Your task to perform on an android device: see creations saved in the google photos Image 0: 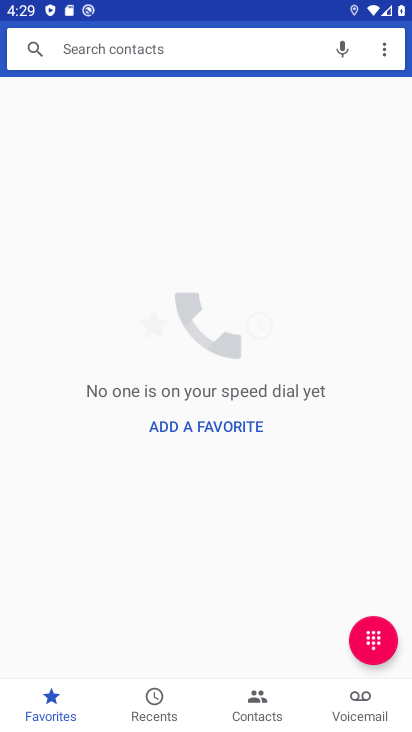
Step 0: press home button
Your task to perform on an android device: see creations saved in the google photos Image 1: 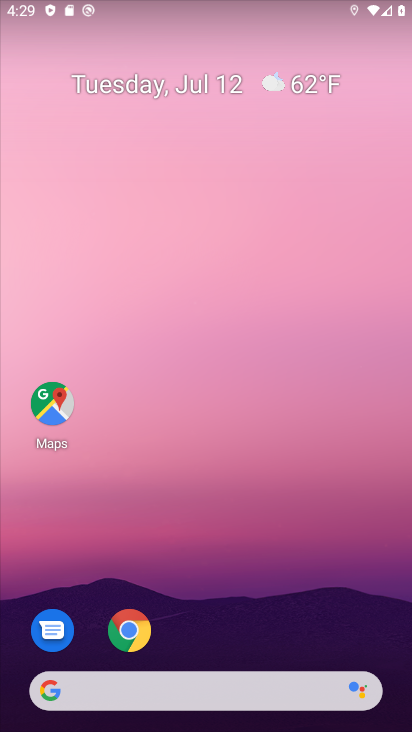
Step 1: drag from (208, 663) to (272, 217)
Your task to perform on an android device: see creations saved in the google photos Image 2: 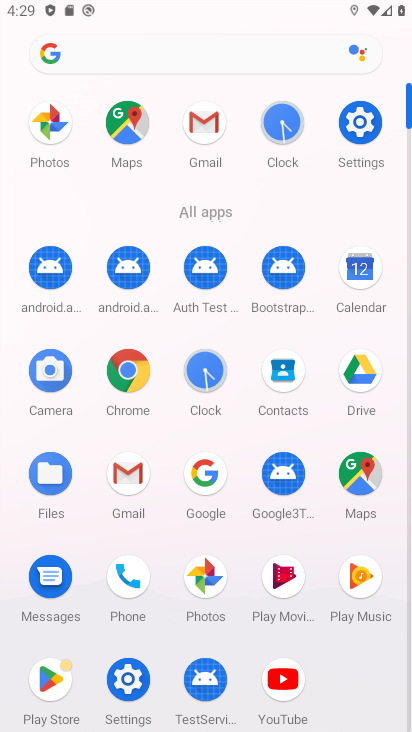
Step 2: click (193, 585)
Your task to perform on an android device: see creations saved in the google photos Image 3: 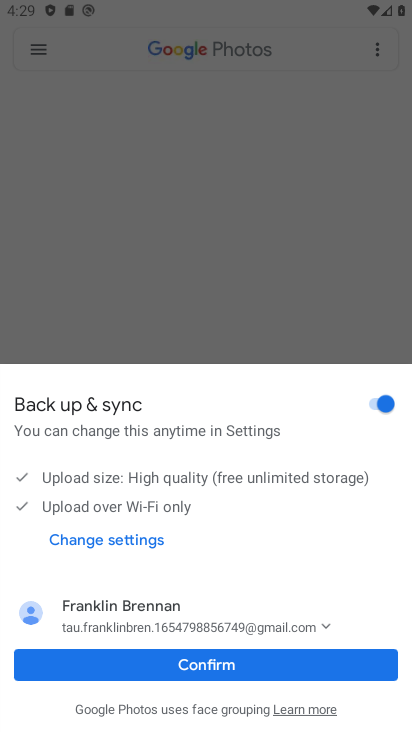
Step 3: click (218, 663)
Your task to perform on an android device: see creations saved in the google photos Image 4: 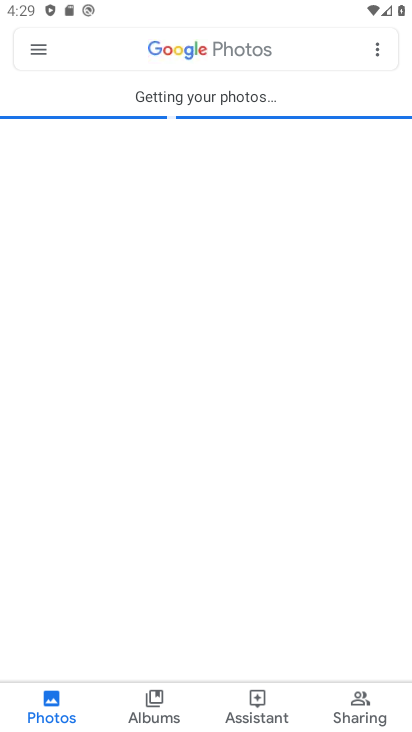
Step 4: click (227, 53)
Your task to perform on an android device: see creations saved in the google photos Image 5: 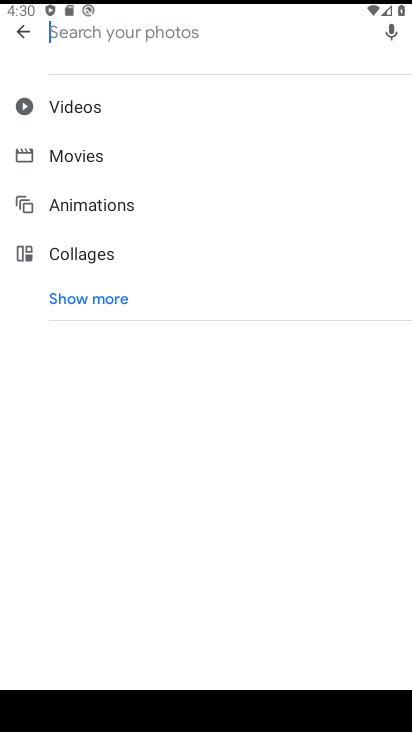
Step 5: click (93, 297)
Your task to perform on an android device: see creations saved in the google photos Image 6: 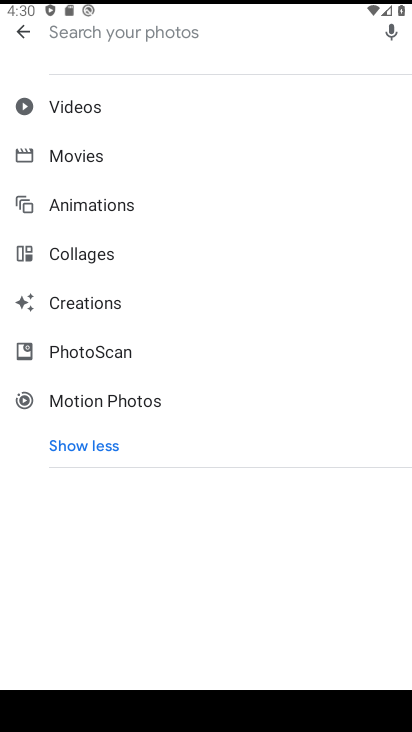
Step 6: click (93, 301)
Your task to perform on an android device: see creations saved in the google photos Image 7: 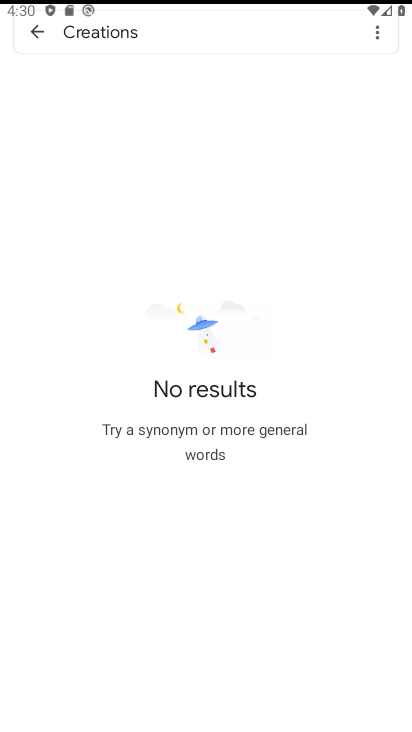
Step 7: task complete